Your task to perform on an android device: turn on showing notifications on the lock screen Image 0: 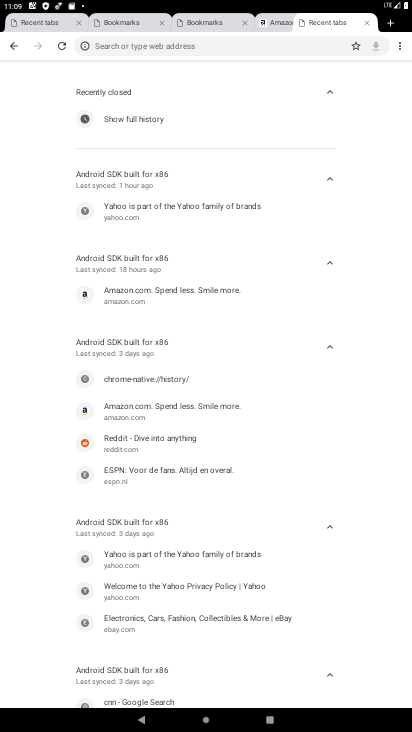
Step 0: press home button
Your task to perform on an android device: turn on showing notifications on the lock screen Image 1: 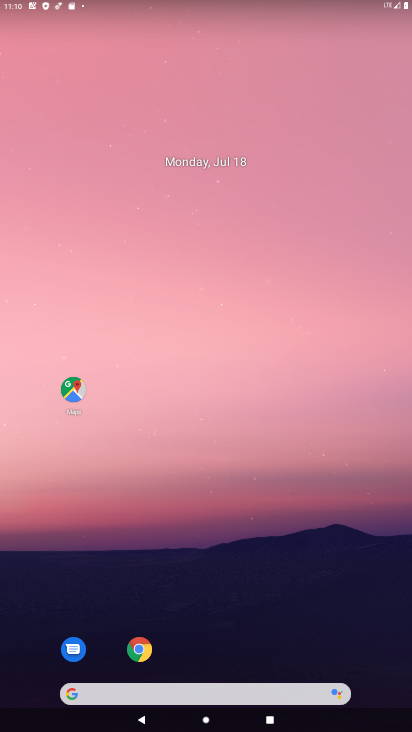
Step 1: drag from (238, 720) to (293, 93)
Your task to perform on an android device: turn on showing notifications on the lock screen Image 2: 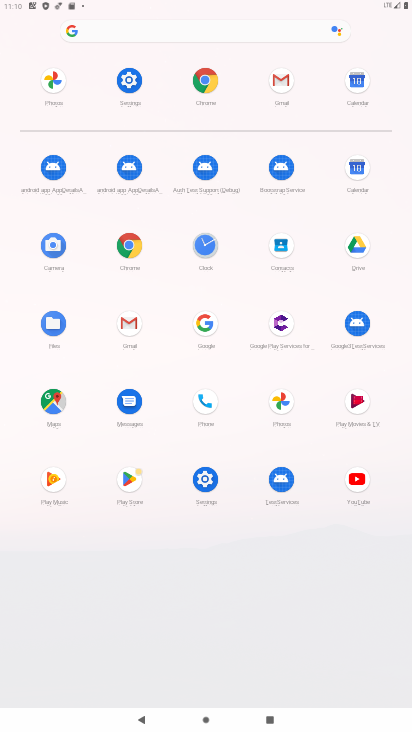
Step 2: click (130, 86)
Your task to perform on an android device: turn on showing notifications on the lock screen Image 3: 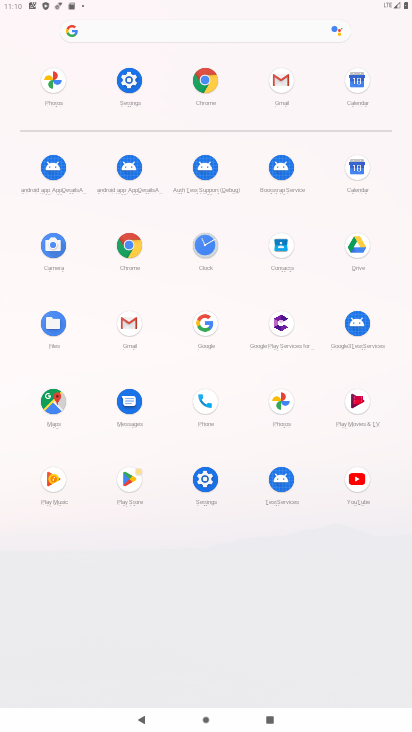
Step 3: click (130, 86)
Your task to perform on an android device: turn on showing notifications on the lock screen Image 4: 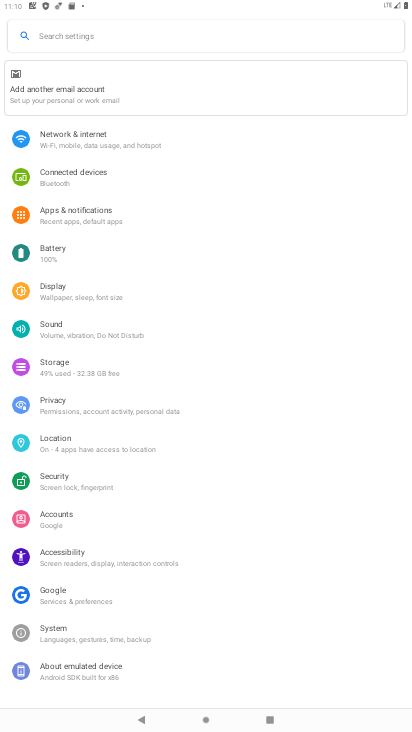
Step 4: click (149, 210)
Your task to perform on an android device: turn on showing notifications on the lock screen Image 5: 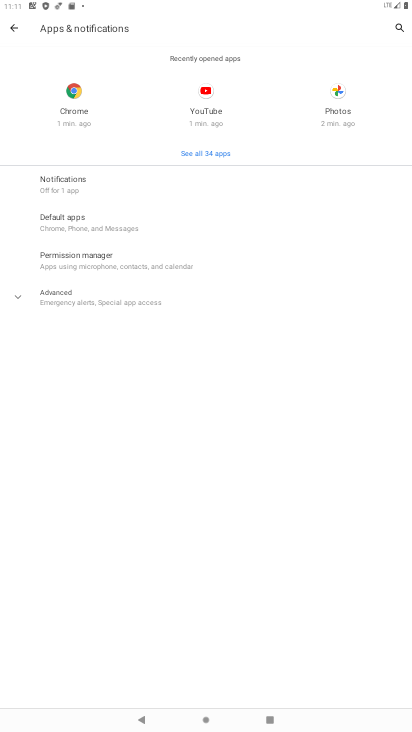
Step 5: click (110, 179)
Your task to perform on an android device: turn on showing notifications on the lock screen Image 6: 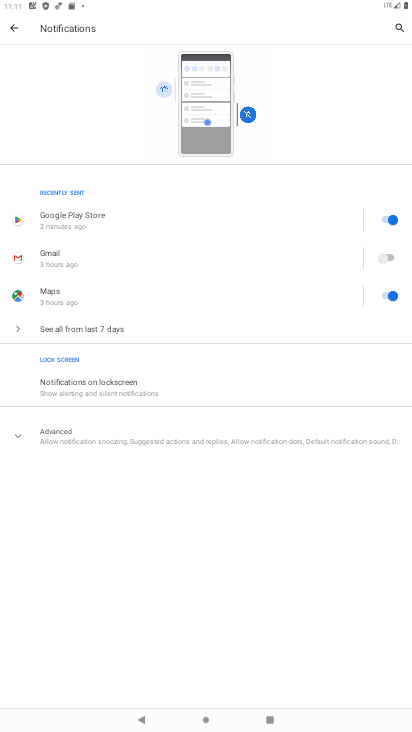
Step 6: click (194, 393)
Your task to perform on an android device: turn on showing notifications on the lock screen Image 7: 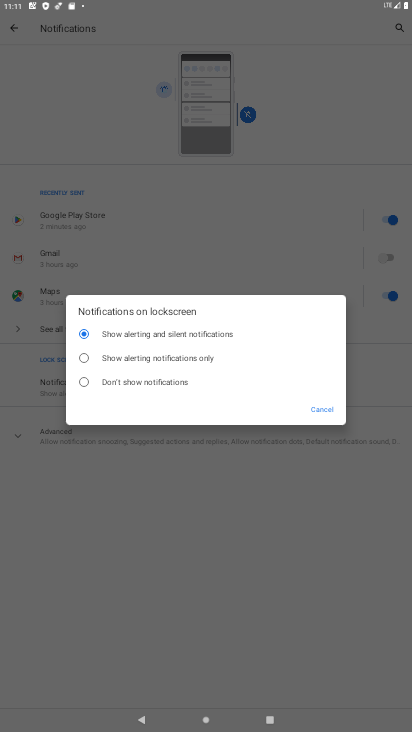
Step 7: task complete